Your task to perform on an android device: Go to Google Image 0: 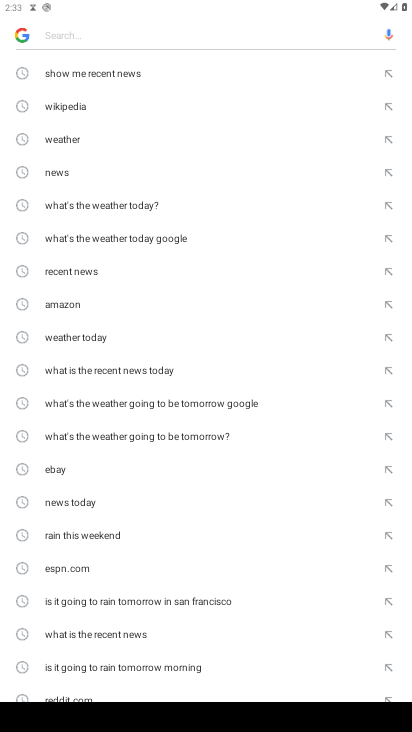
Step 0: press home button
Your task to perform on an android device: Go to Google Image 1: 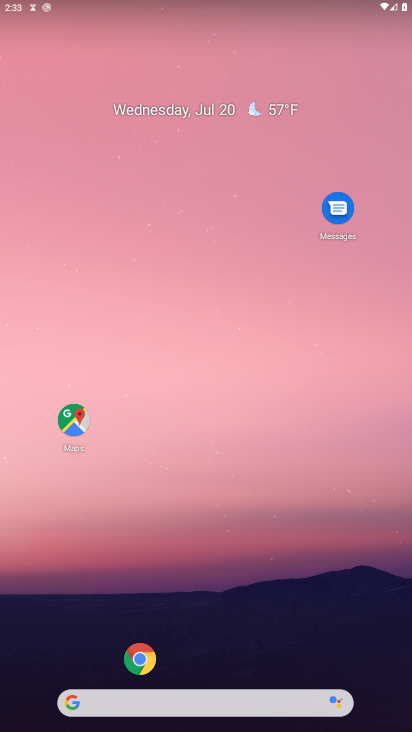
Step 1: click (139, 696)
Your task to perform on an android device: Go to Google Image 2: 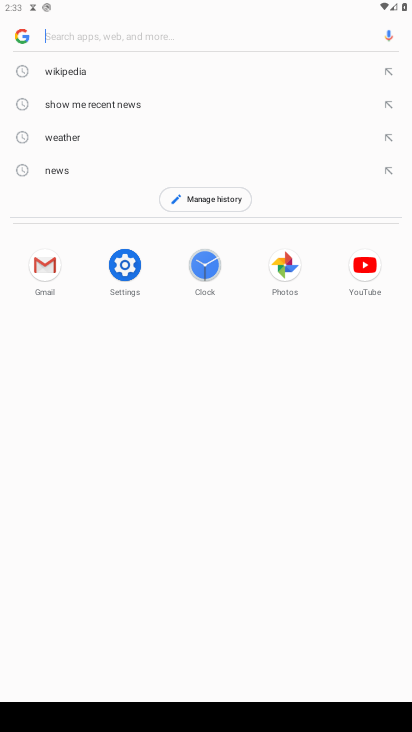
Step 2: task complete